Your task to perform on an android device: Do I have any events today? Image 0: 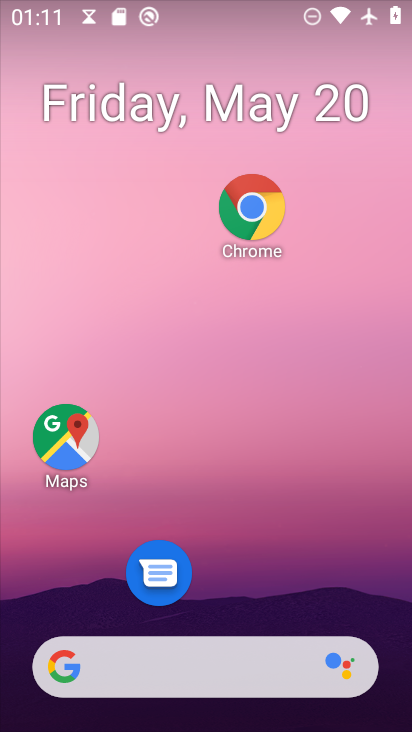
Step 0: drag from (270, 568) to (325, 39)
Your task to perform on an android device: Do I have any events today? Image 1: 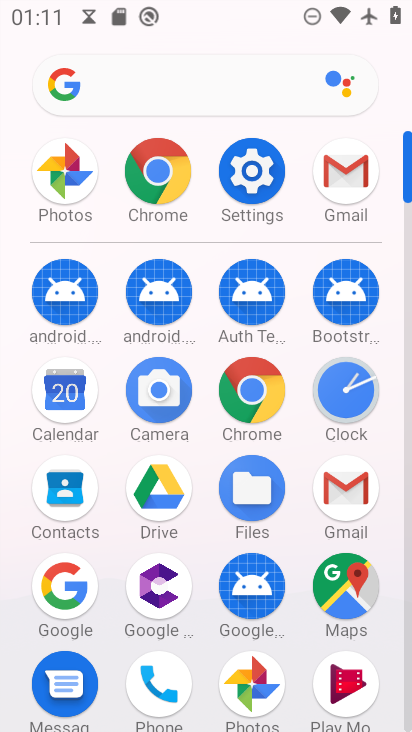
Step 1: click (64, 378)
Your task to perform on an android device: Do I have any events today? Image 2: 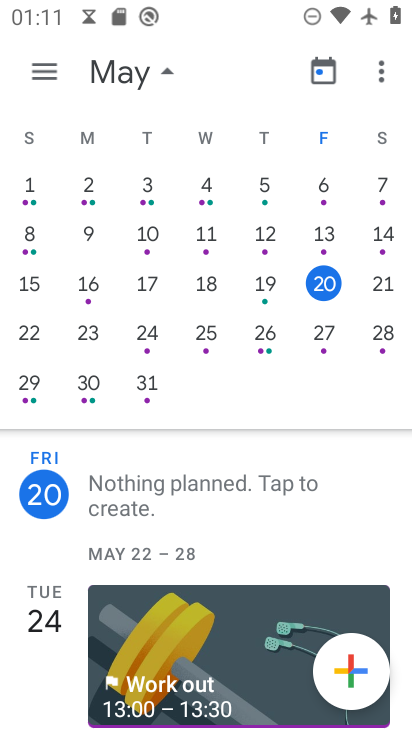
Step 2: click (326, 289)
Your task to perform on an android device: Do I have any events today? Image 3: 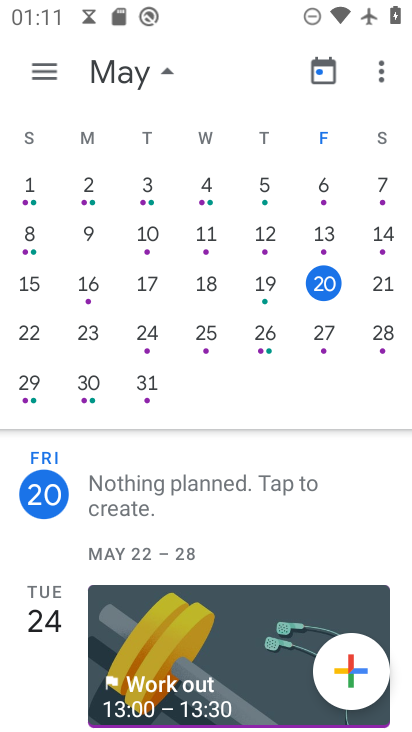
Step 3: task complete